Your task to perform on an android device: allow notifications from all sites in the chrome app Image 0: 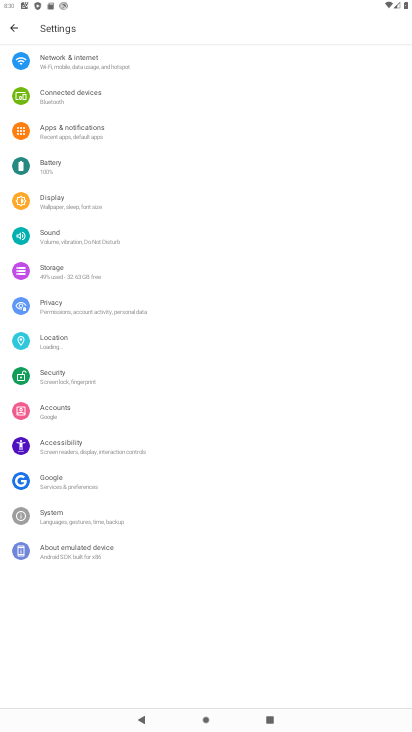
Step 0: press home button
Your task to perform on an android device: allow notifications from all sites in the chrome app Image 1: 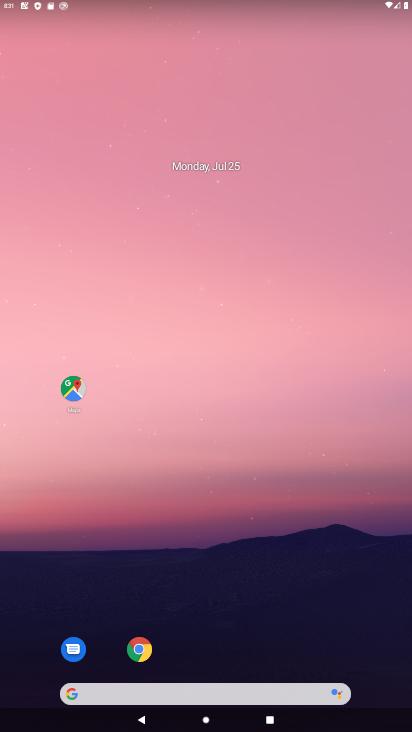
Step 1: drag from (211, 659) to (282, 114)
Your task to perform on an android device: allow notifications from all sites in the chrome app Image 2: 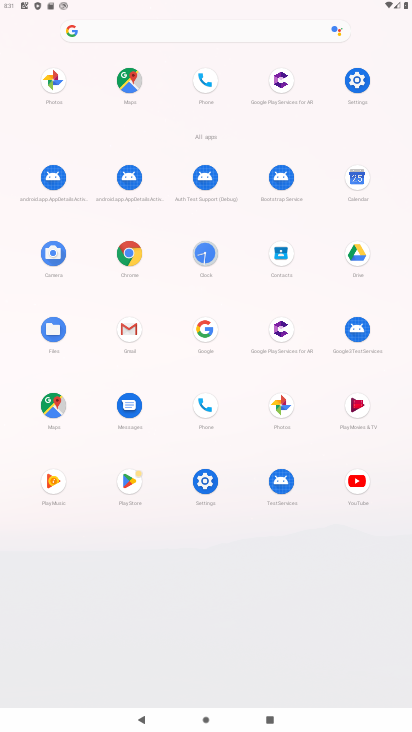
Step 2: click (123, 256)
Your task to perform on an android device: allow notifications from all sites in the chrome app Image 3: 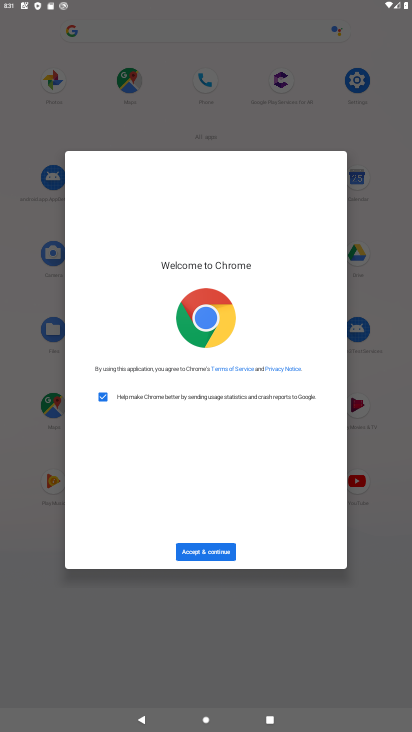
Step 3: click (210, 547)
Your task to perform on an android device: allow notifications from all sites in the chrome app Image 4: 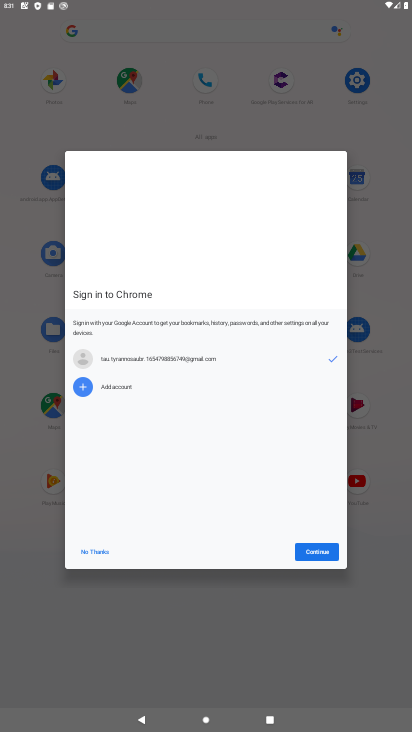
Step 4: click (310, 542)
Your task to perform on an android device: allow notifications from all sites in the chrome app Image 5: 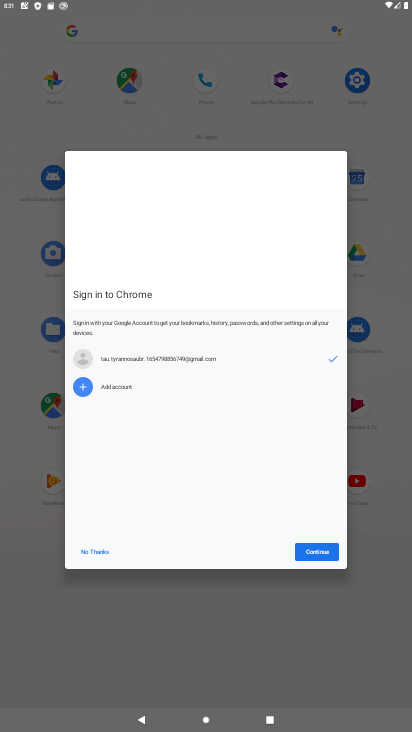
Step 5: click (312, 550)
Your task to perform on an android device: allow notifications from all sites in the chrome app Image 6: 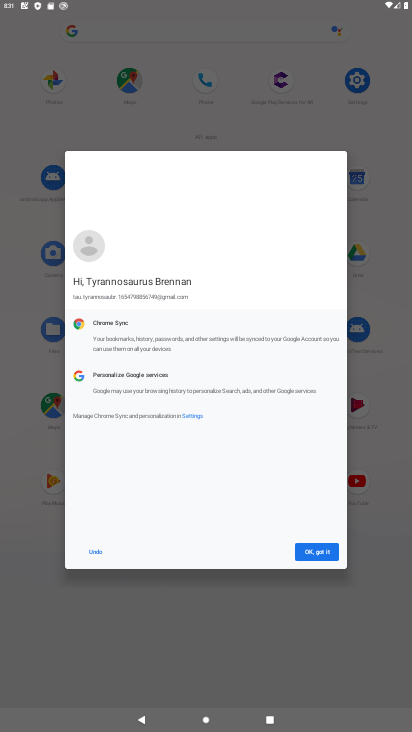
Step 6: click (312, 550)
Your task to perform on an android device: allow notifications from all sites in the chrome app Image 7: 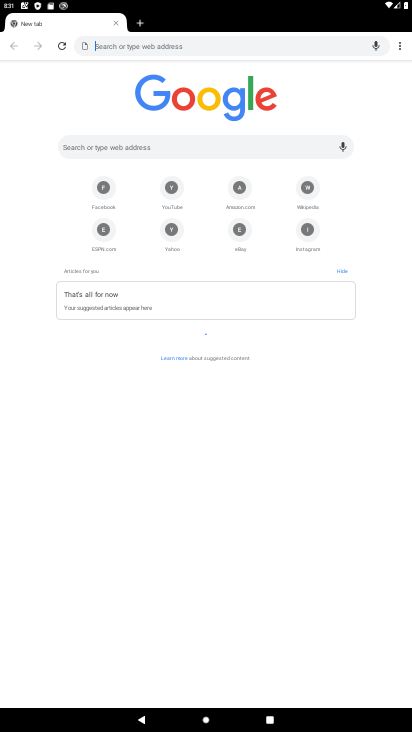
Step 7: click (397, 48)
Your task to perform on an android device: allow notifications from all sites in the chrome app Image 8: 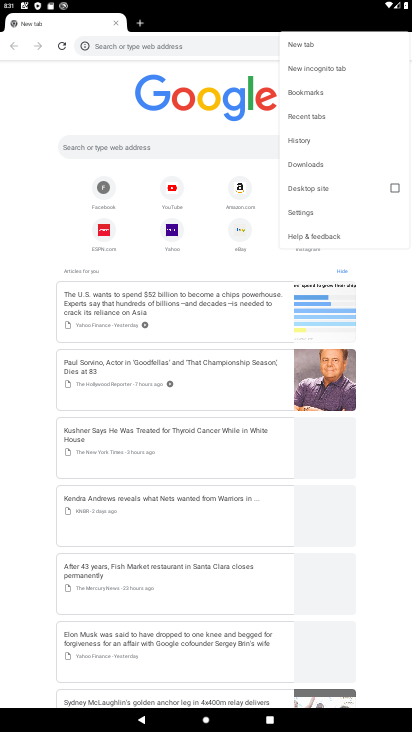
Step 8: click (297, 212)
Your task to perform on an android device: allow notifications from all sites in the chrome app Image 9: 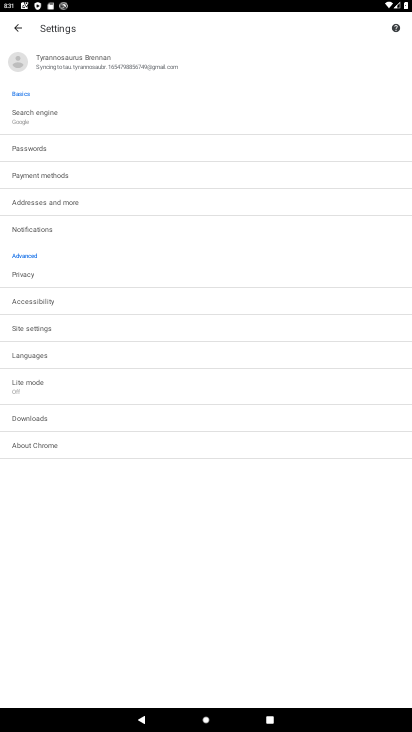
Step 9: click (27, 328)
Your task to perform on an android device: allow notifications from all sites in the chrome app Image 10: 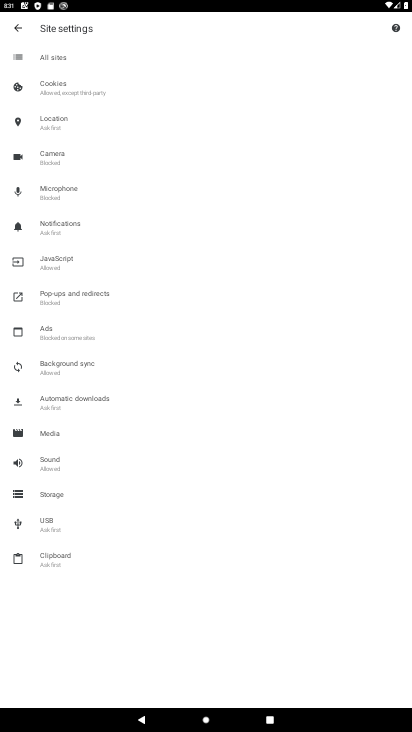
Step 10: click (42, 195)
Your task to perform on an android device: allow notifications from all sites in the chrome app Image 11: 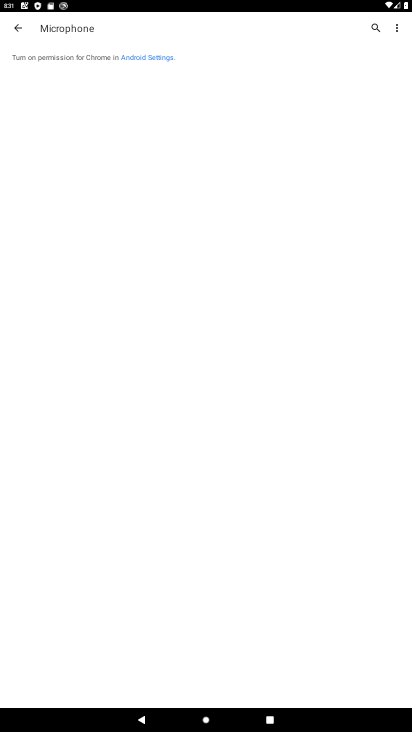
Step 11: click (15, 24)
Your task to perform on an android device: allow notifications from all sites in the chrome app Image 12: 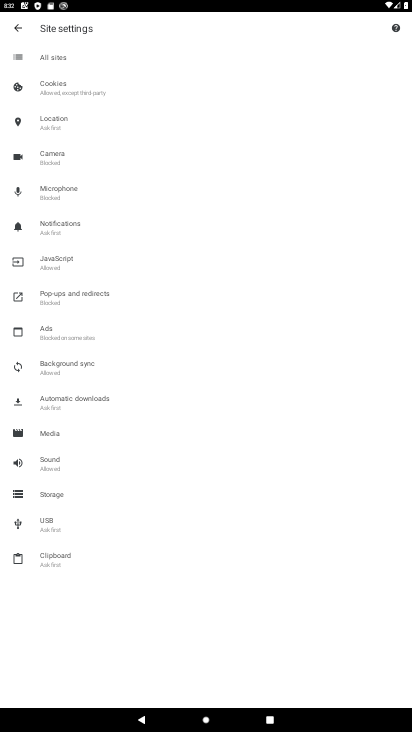
Step 12: click (28, 222)
Your task to perform on an android device: allow notifications from all sites in the chrome app Image 13: 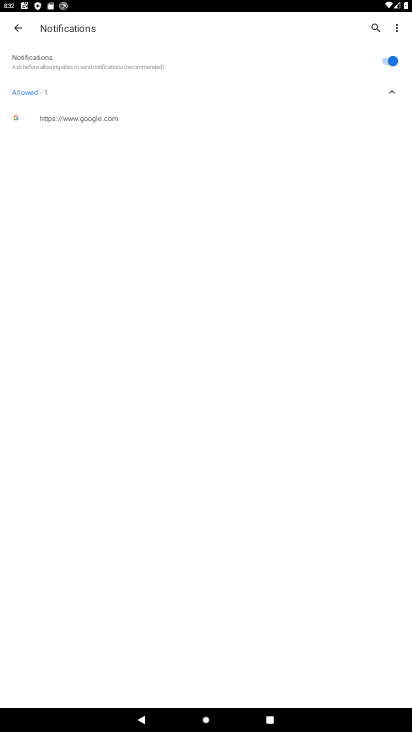
Step 13: task complete